Your task to perform on an android device: open app "NewsBreak: Local News & Alerts" (install if not already installed) and enter user name: "switch@outlook.com" and password: "fabrics" Image 0: 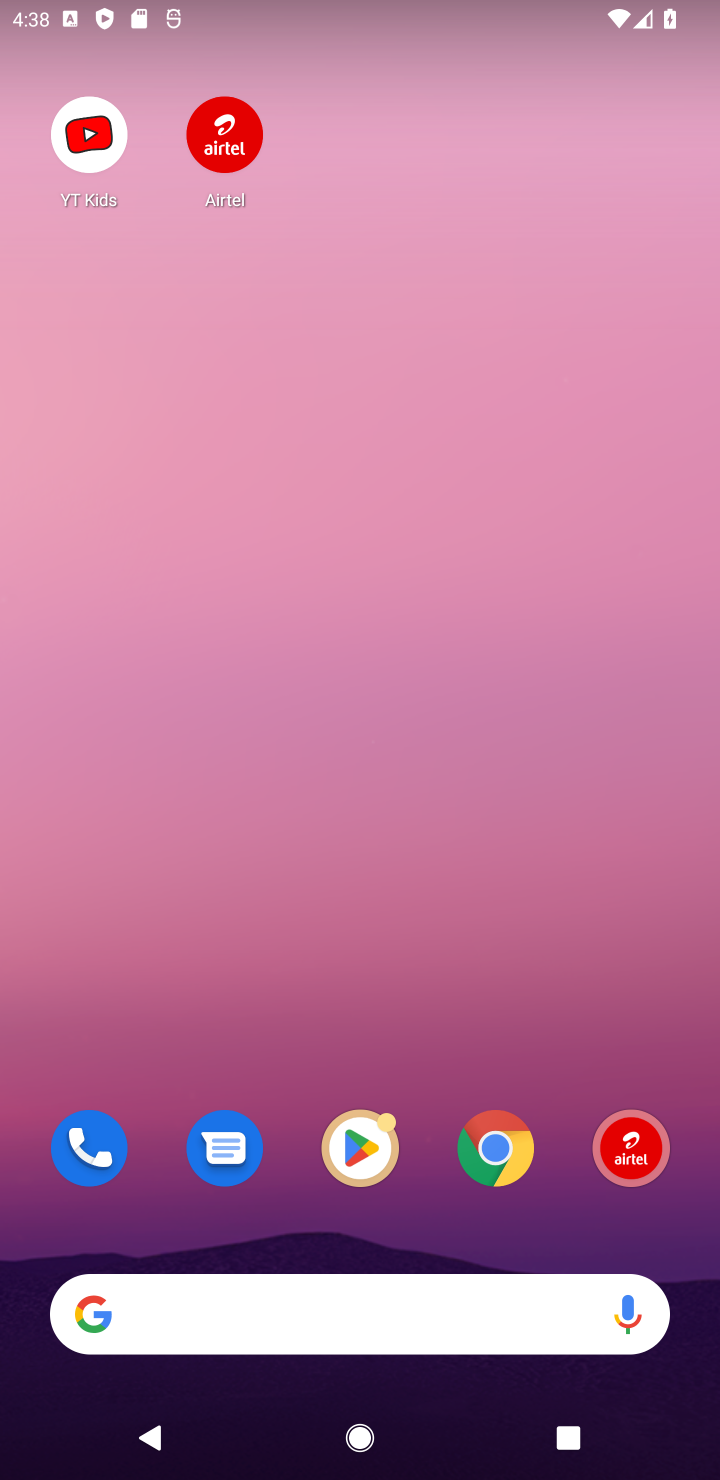
Step 0: click (356, 1157)
Your task to perform on an android device: open app "NewsBreak: Local News & Alerts" (install if not already installed) and enter user name: "switch@outlook.com" and password: "fabrics" Image 1: 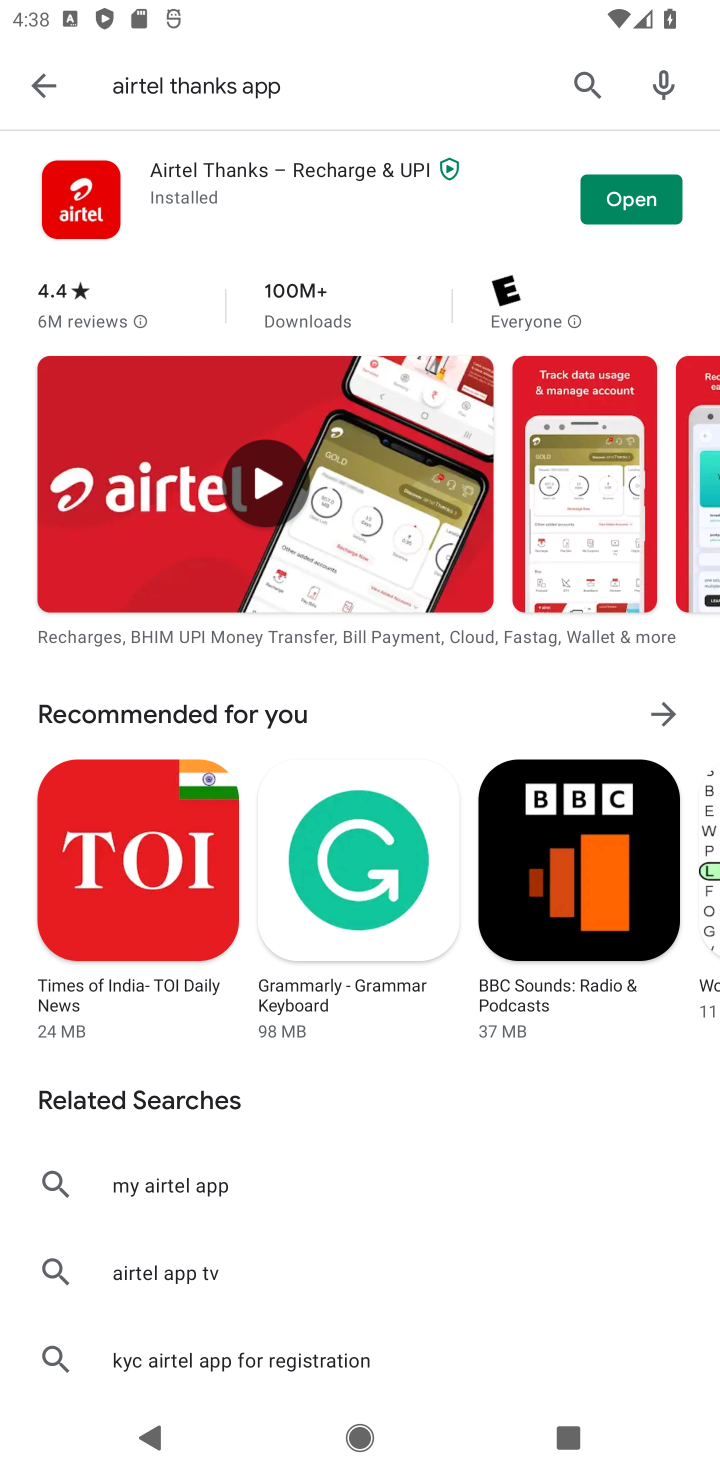
Step 1: click (576, 78)
Your task to perform on an android device: open app "NewsBreak: Local News & Alerts" (install if not already installed) and enter user name: "switch@outlook.com" and password: "fabrics" Image 2: 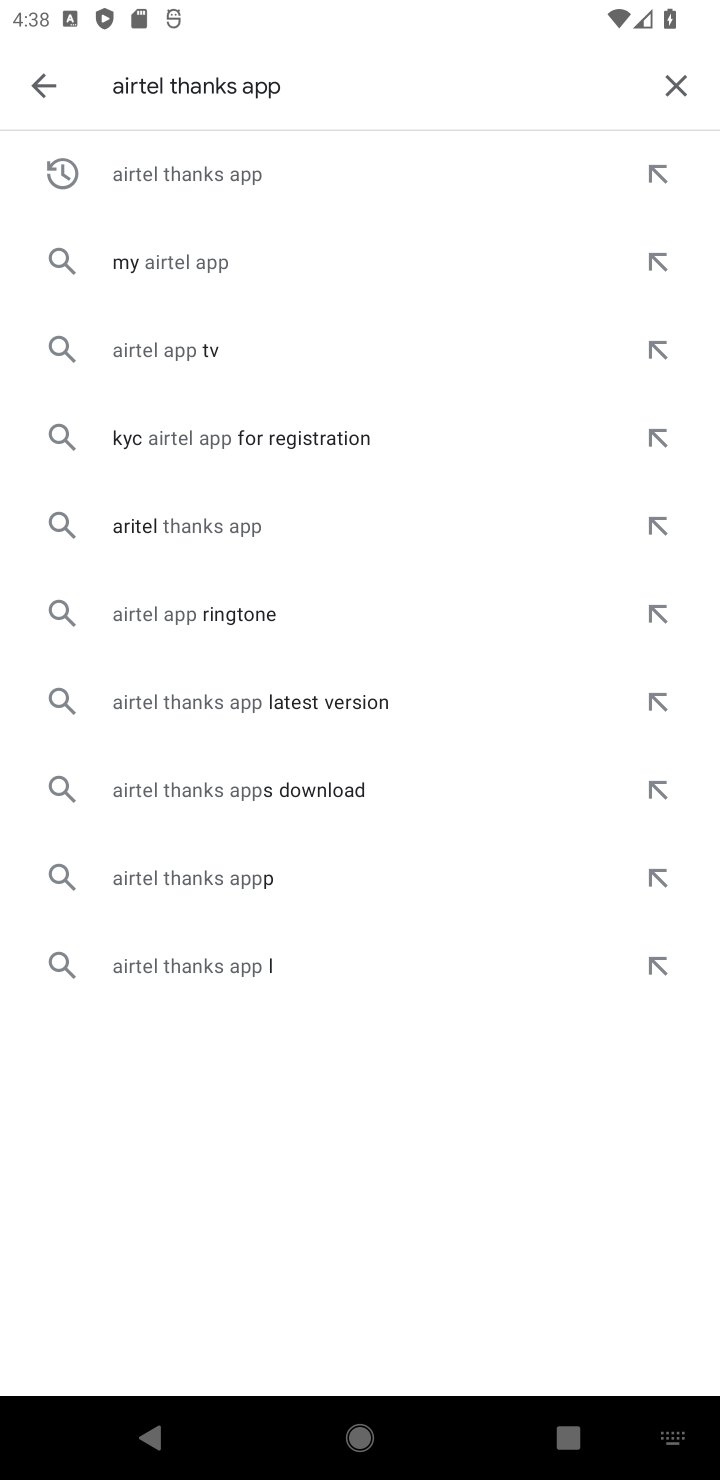
Step 2: click (680, 81)
Your task to perform on an android device: open app "NewsBreak: Local News & Alerts" (install if not already installed) and enter user name: "switch@outlook.com" and password: "fabrics" Image 3: 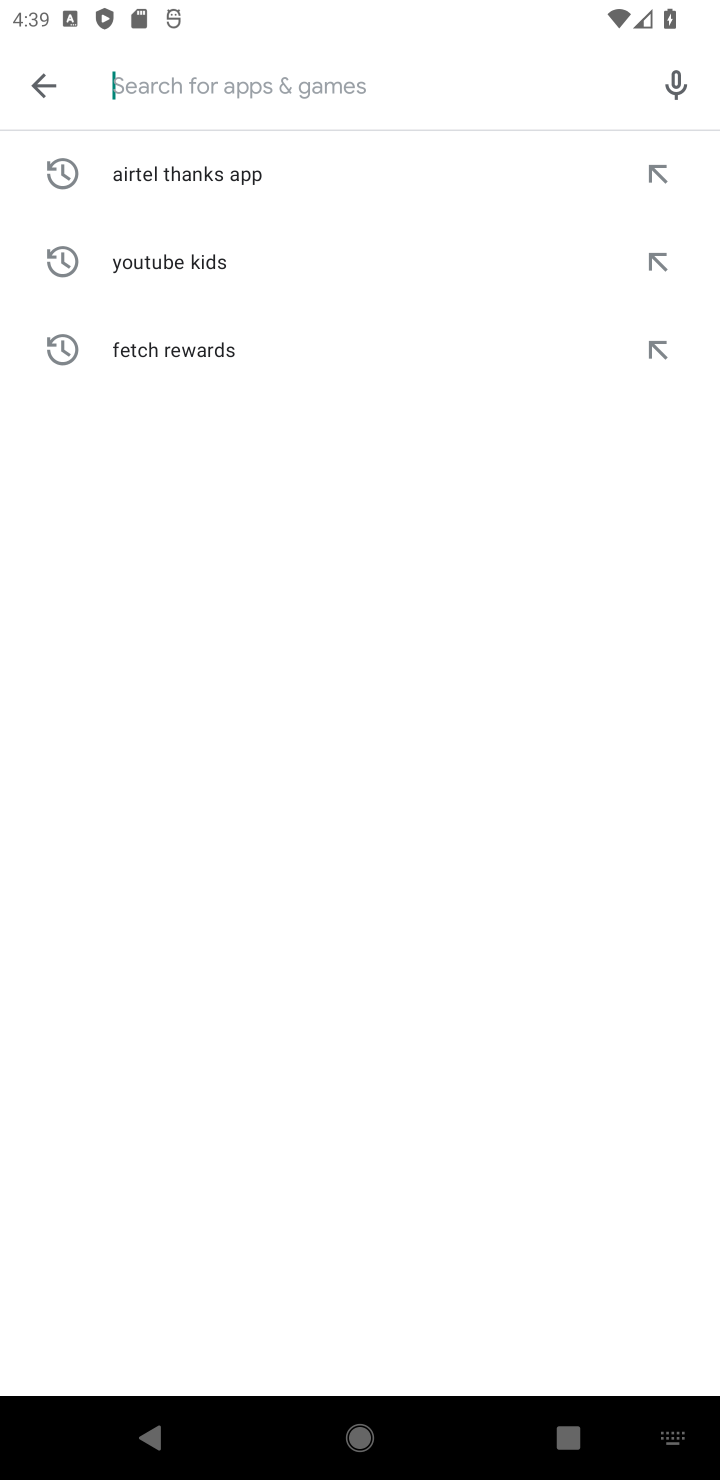
Step 3: type "NewsBreak: Local News & Alerts"
Your task to perform on an android device: open app "NewsBreak: Local News & Alerts" (install if not already installed) and enter user name: "switch@outlook.com" and password: "fabrics" Image 4: 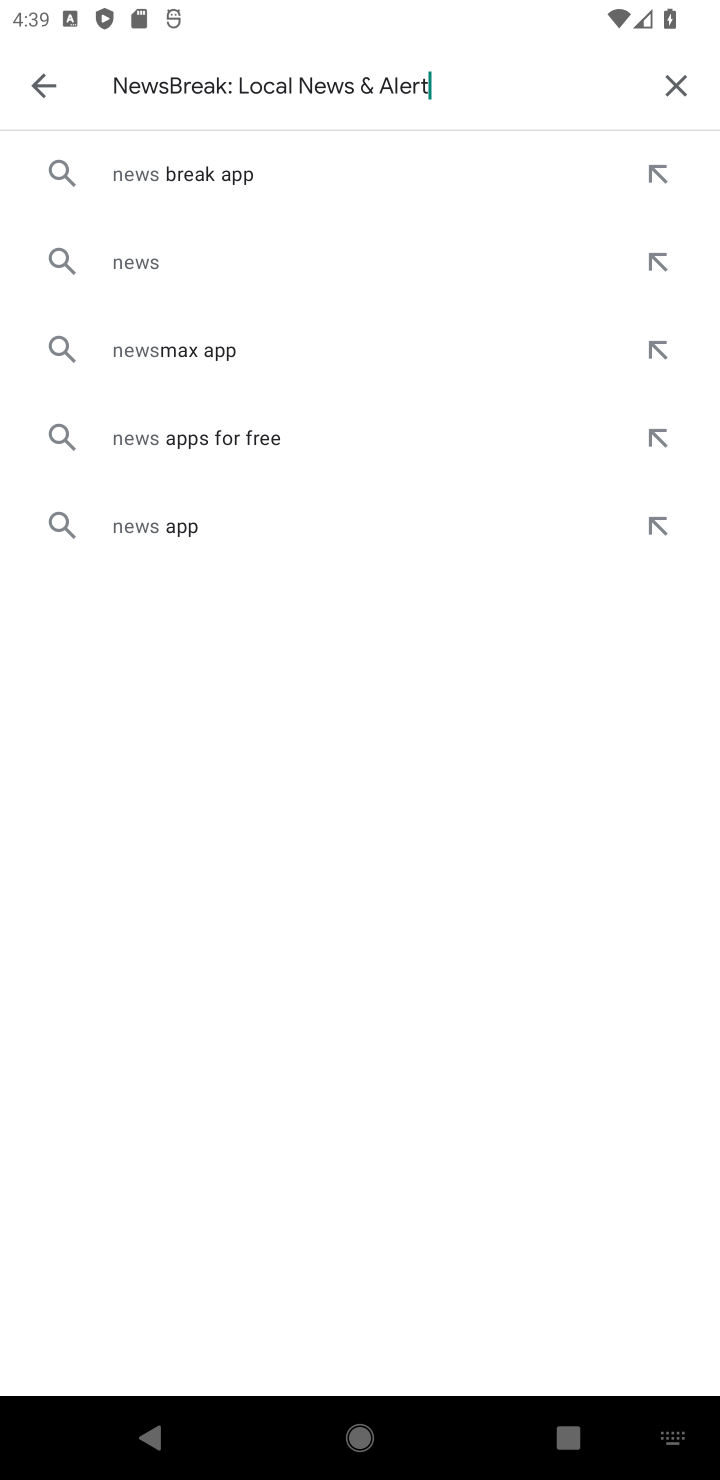
Step 4: type ""
Your task to perform on an android device: open app "NewsBreak: Local News & Alerts" (install if not already installed) and enter user name: "switch@outlook.com" and password: "fabrics" Image 5: 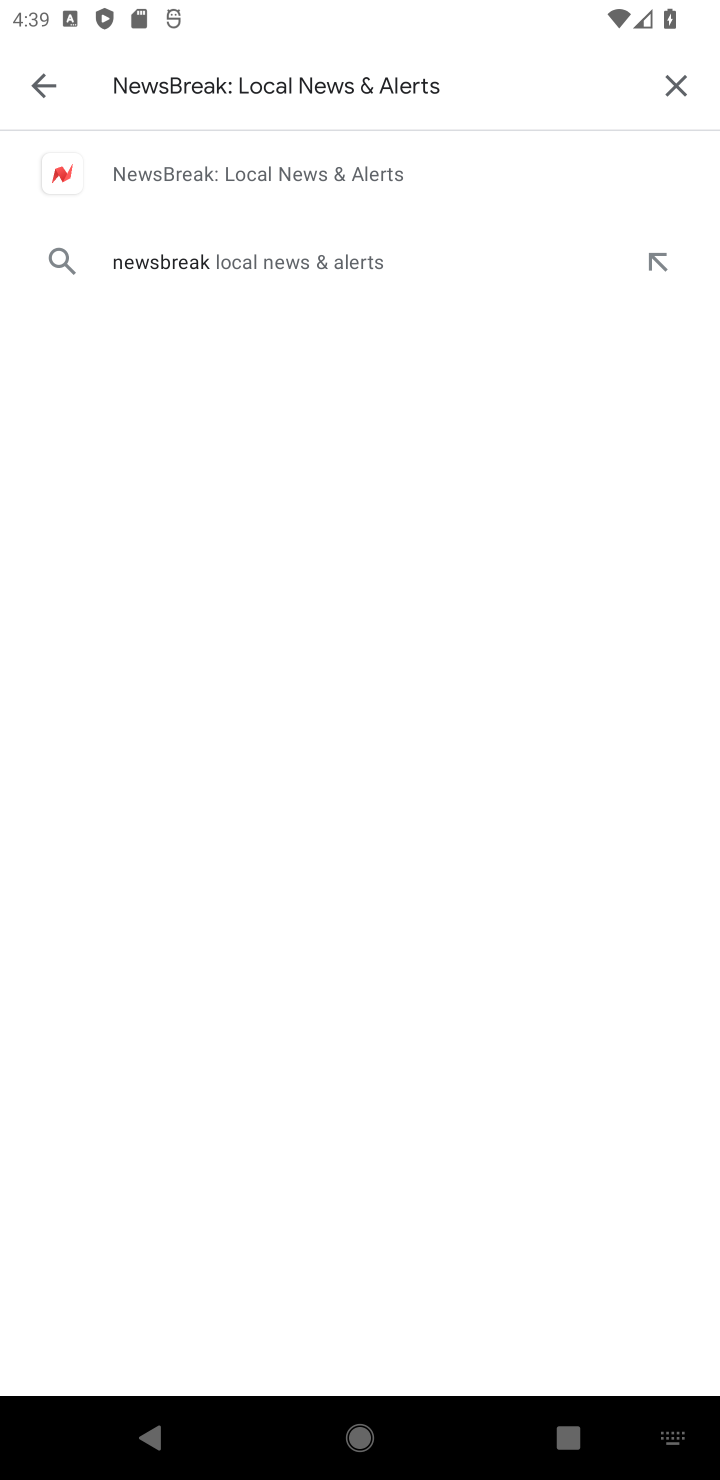
Step 5: click (374, 172)
Your task to perform on an android device: open app "NewsBreak: Local News & Alerts" (install if not already installed) and enter user name: "switch@outlook.com" and password: "fabrics" Image 6: 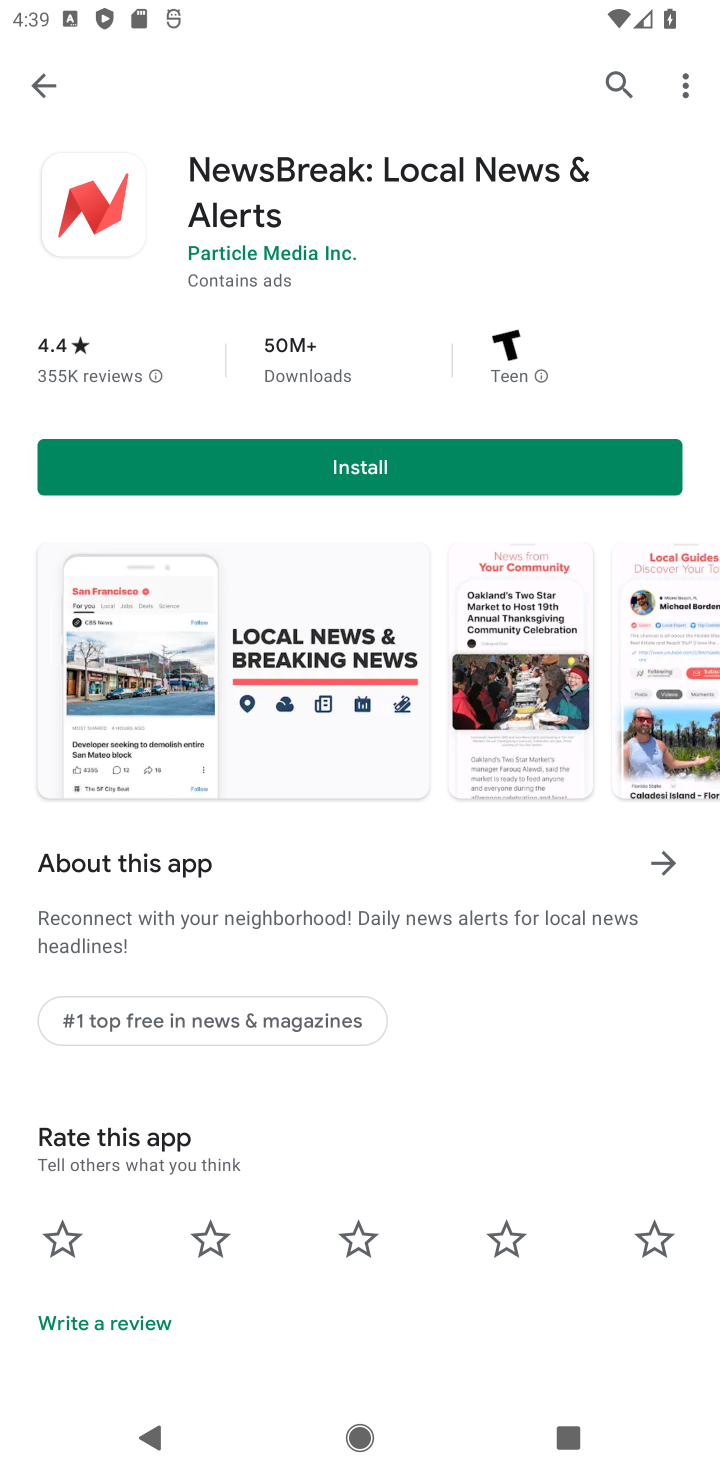
Step 6: click (347, 474)
Your task to perform on an android device: open app "NewsBreak: Local News & Alerts" (install if not already installed) and enter user name: "switch@outlook.com" and password: "fabrics" Image 7: 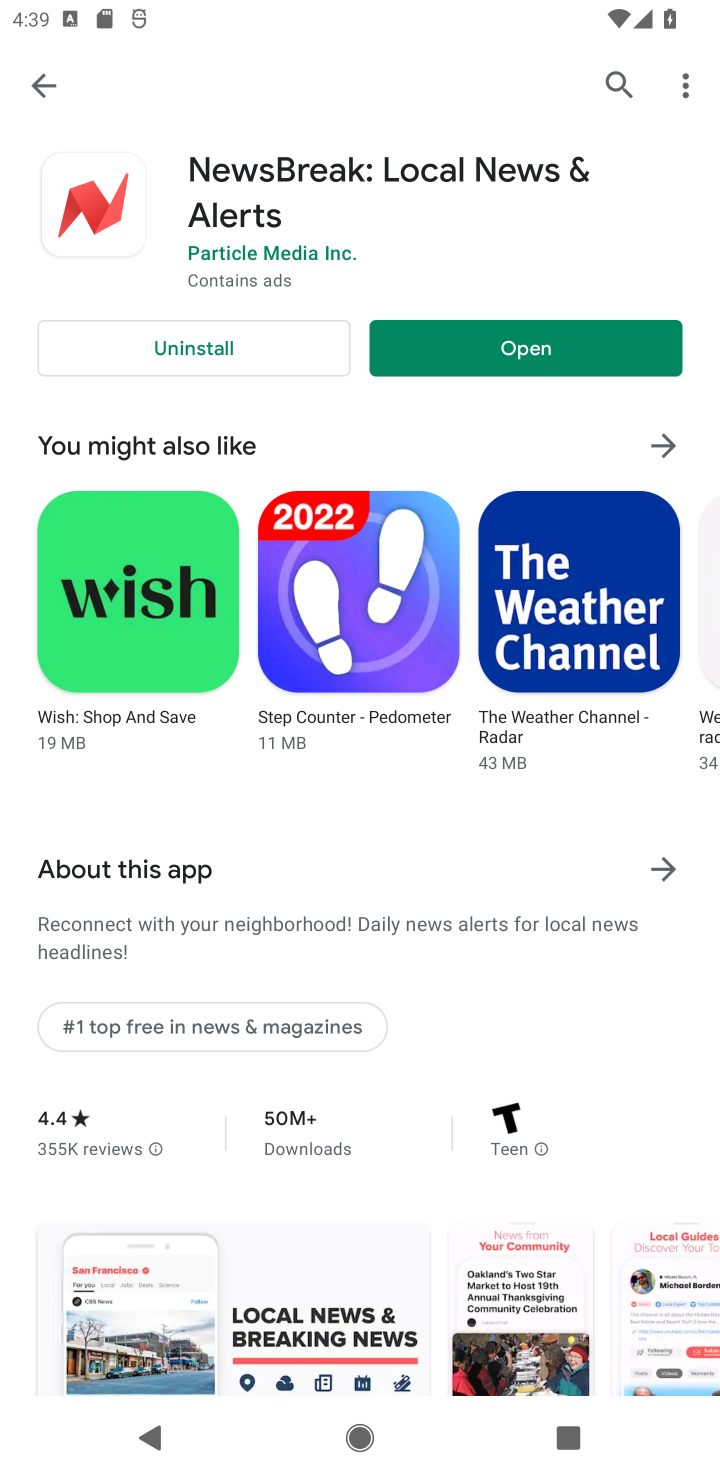
Step 7: click (525, 351)
Your task to perform on an android device: open app "NewsBreak: Local News & Alerts" (install if not already installed) and enter user name: "switch@outlook.com" and password: "fabrics" Image 8: 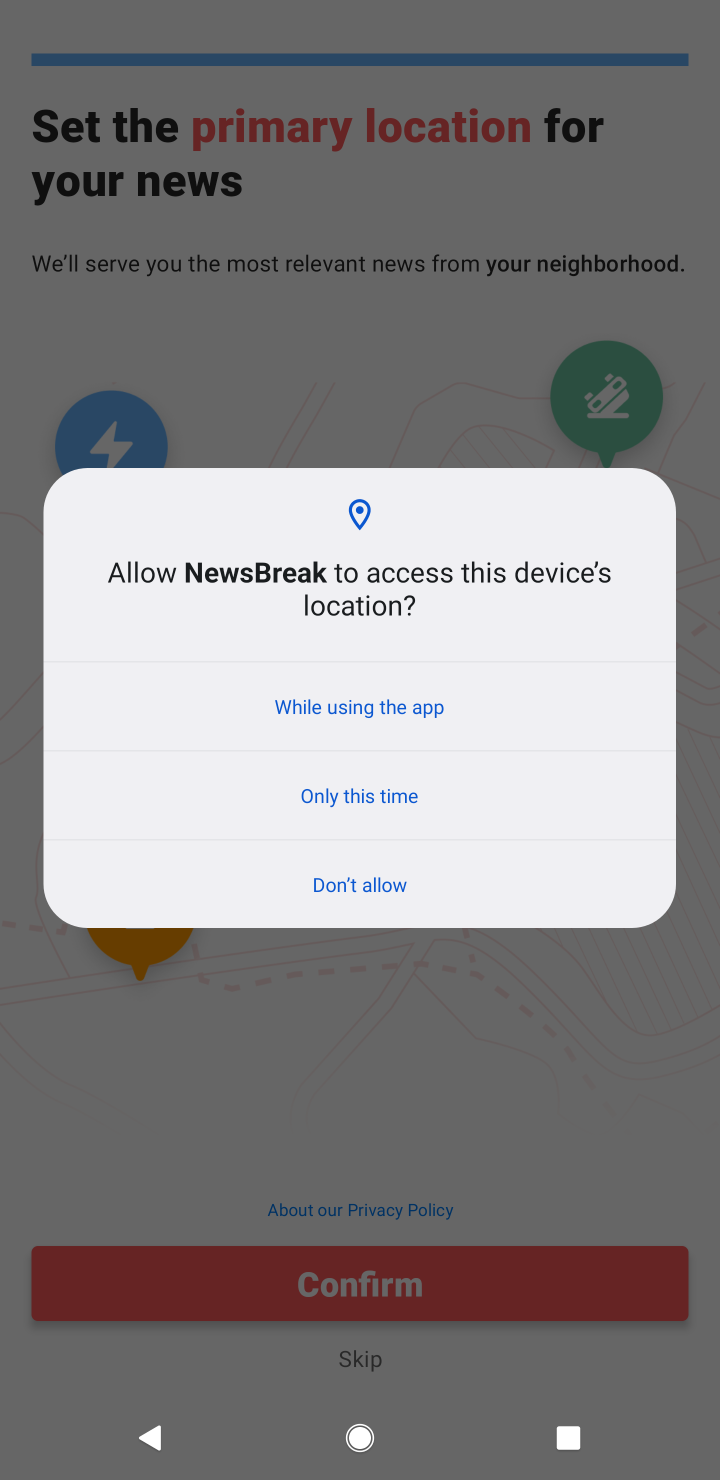
Step 8: click (383, 701)
Your task to perform on an android device: open app "NewsBreak: Local News & Alerts" (install if not already installed) and enter user name: "switch@outlook.com" and password: "fabrics" Image 9: 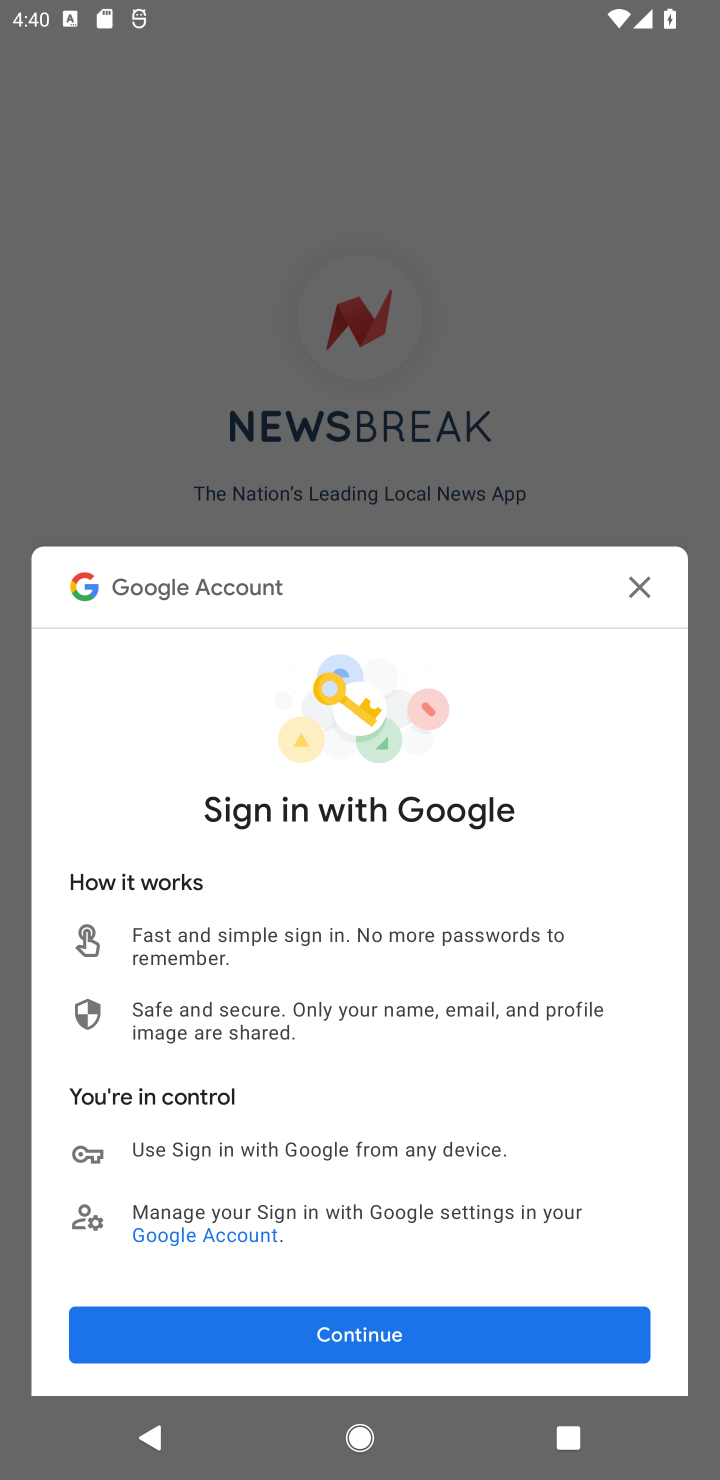
Step 9: click (369, 1344)
Your task to perform on an android device: open app "NewsBreak: Local News & Alerts" (install if not already installed) and enter user name: "switch@outlook.com" and password: "fabrics" Image 10: 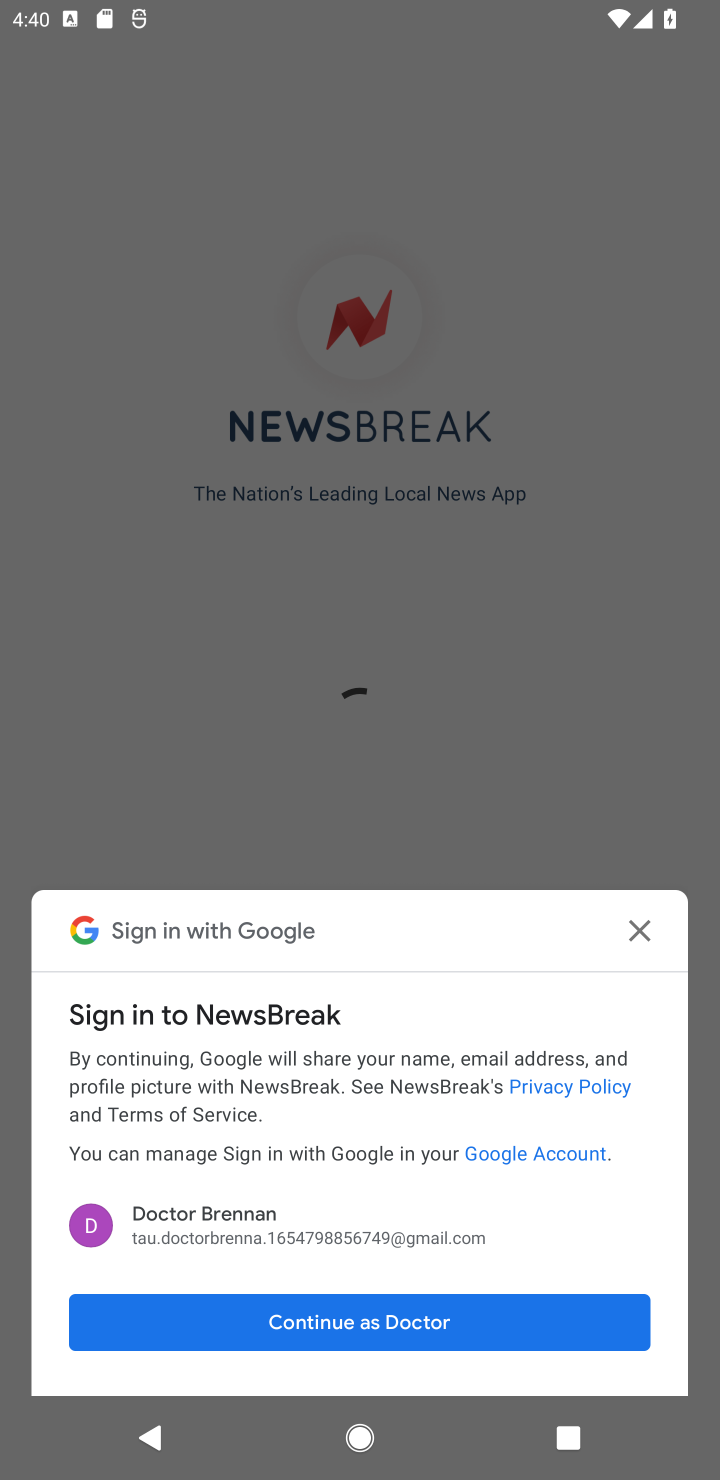
Step 10: click (370, 1342)
Your task to perform on an android device: open app "NewsBreak: Local News & Alerts" (install if not already installed) and enter user name: "switch@outlook.com" and password: "fabrics" Image 11: 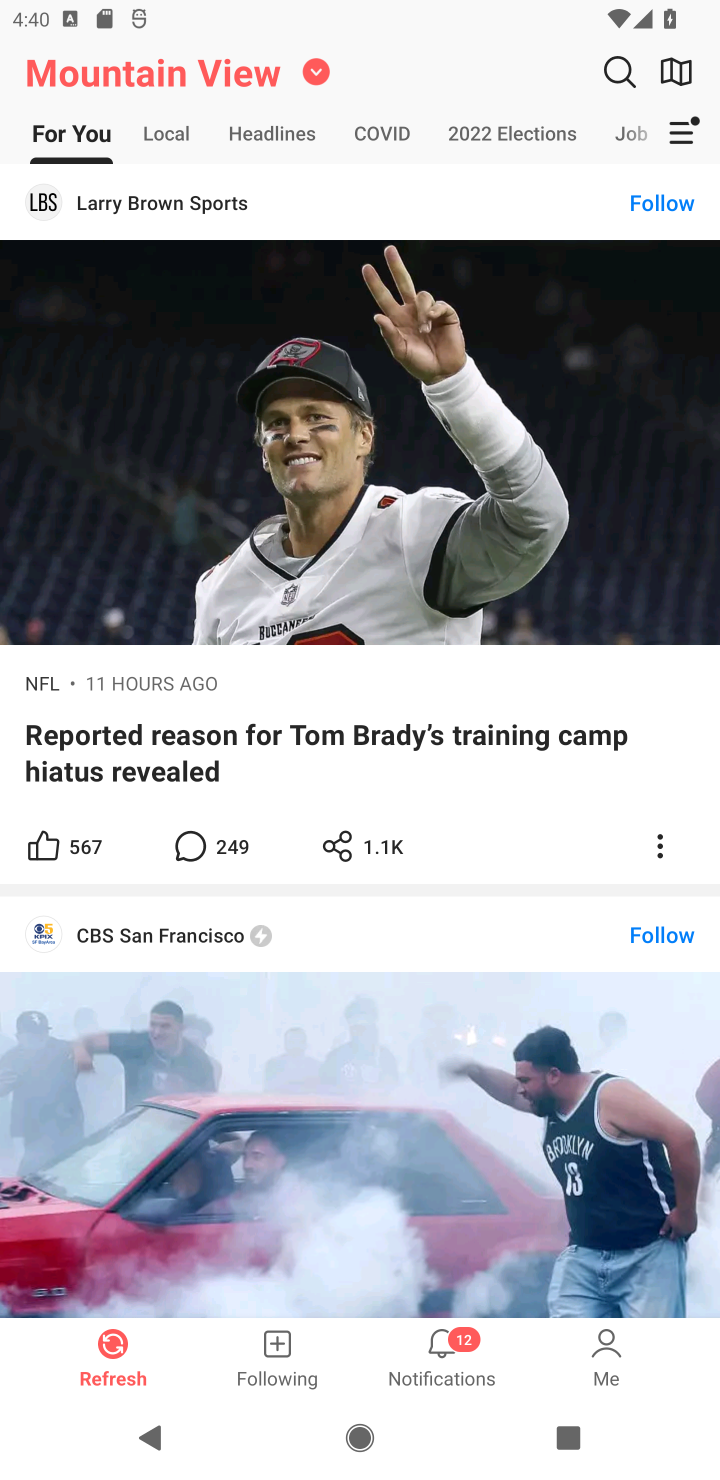
Step 11: task complete